Your task to perform on an android device: Open Google Image 0: 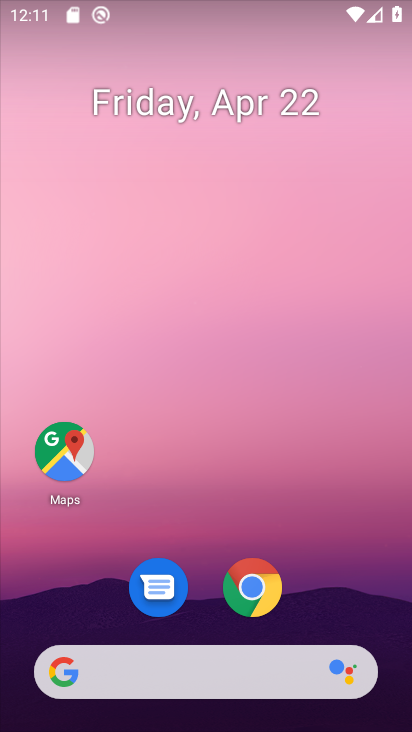
Step 0: drag from (323, 591) to (293, 156)
Your task to perform on an android device: Open Google Image 1: 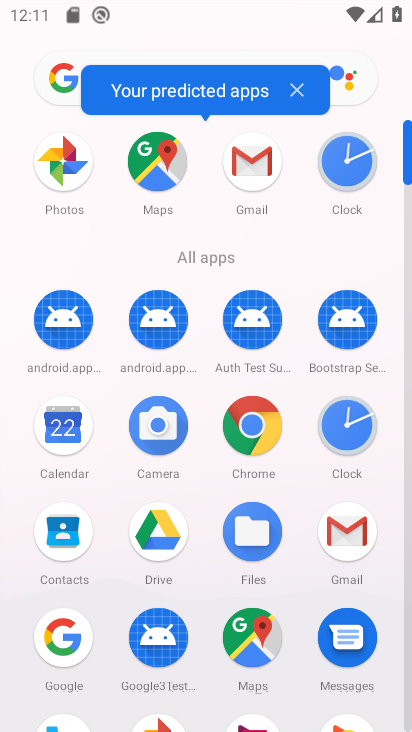
Step 1: drag from (203, 417) to (203, 336)
Your task to perform on an android device: Open Google Image 2: 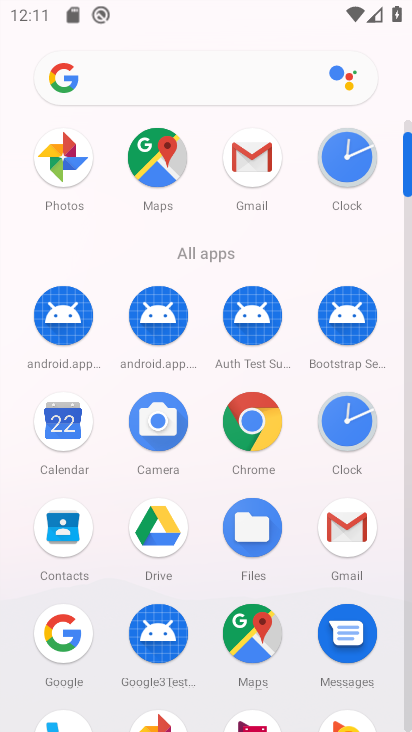
Step 2: drag from (198, 638) to (200, 391)
Your task to perform on an android device: Open Google Image 3: 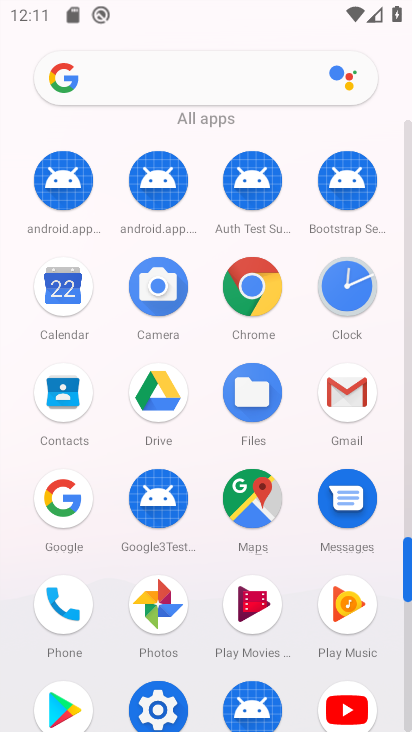
Step 3: click (61, 517)
Your task to perform on an android device: Open Google Image 4: 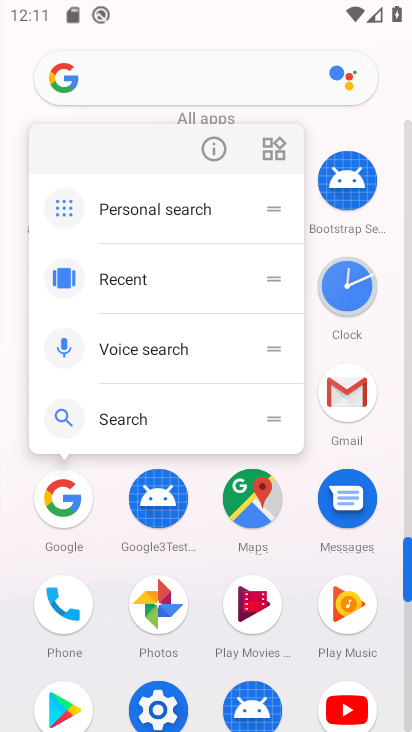
Step 4: click (66, 505)
Your task to perform on an android device: Open Google Image 5: 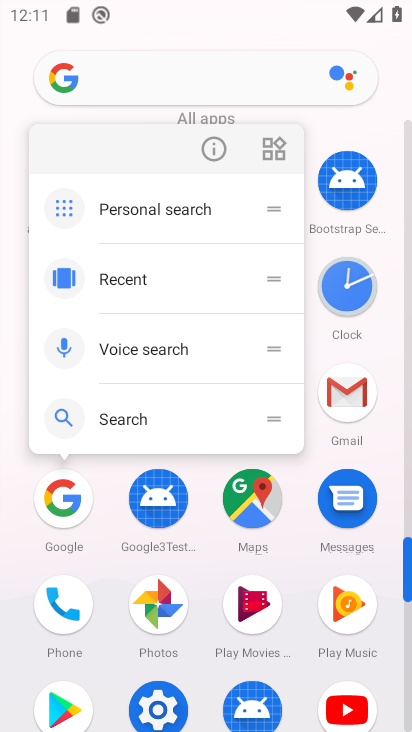
Step 5: click (67, 512)
Your task to perform on an android device: Open Google Image 6: 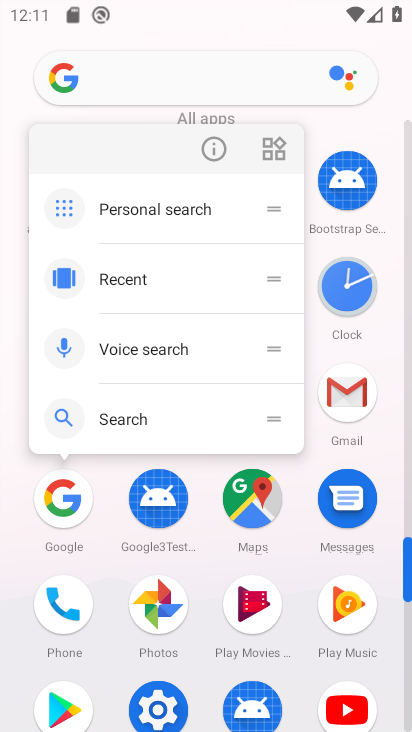
Step 6: click (67, 511)
Your task to perform on an android device: Open Google Image 7: 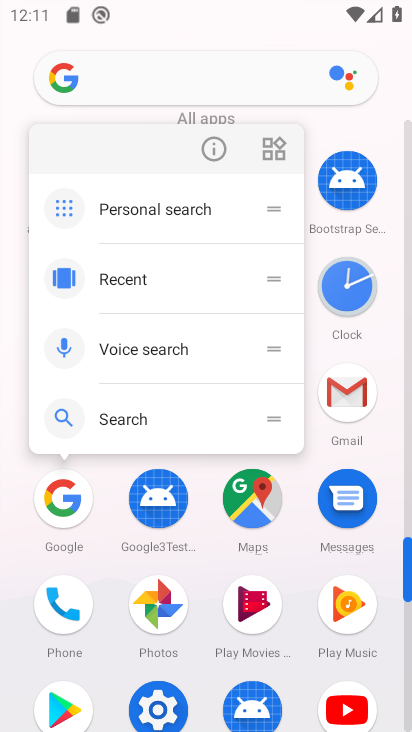
Step 7: click (61, 513)
Your task to perform on an android device: Open Google Image 8: 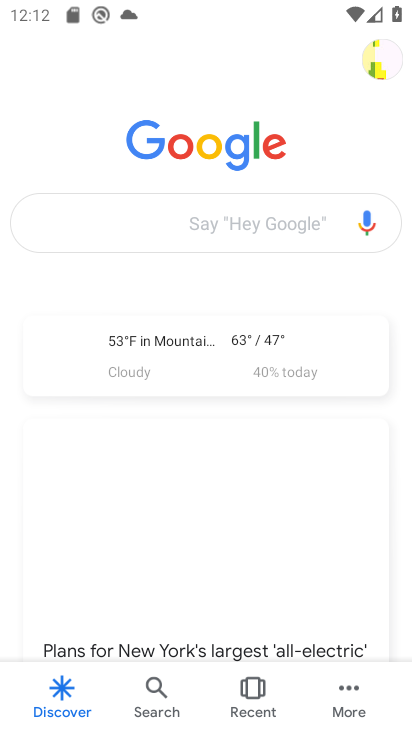
Step 8: task complete